Your task to perform on an android device: all mails in gmail Image 0: 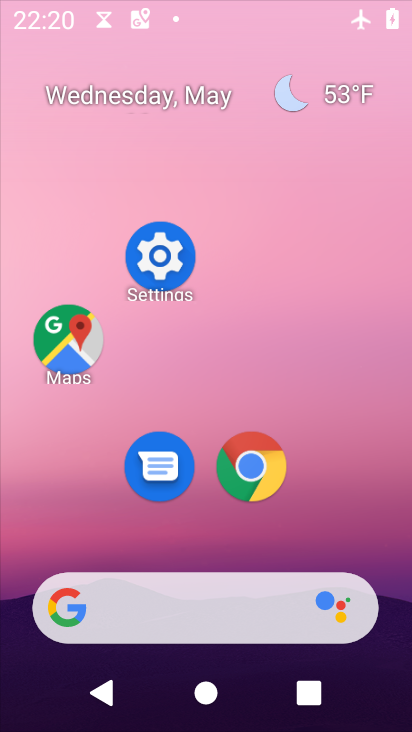
Step 0: click (230, 313)
Your task to perform on an android device: all mails in gmail Image 1: 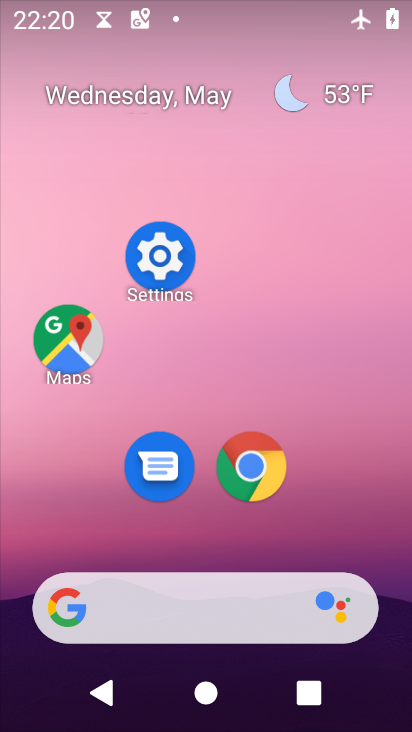
Step 1: drag from (201, 545) to (243, 260)
Your task to perform on an android device: all mails in gmail Image 2: 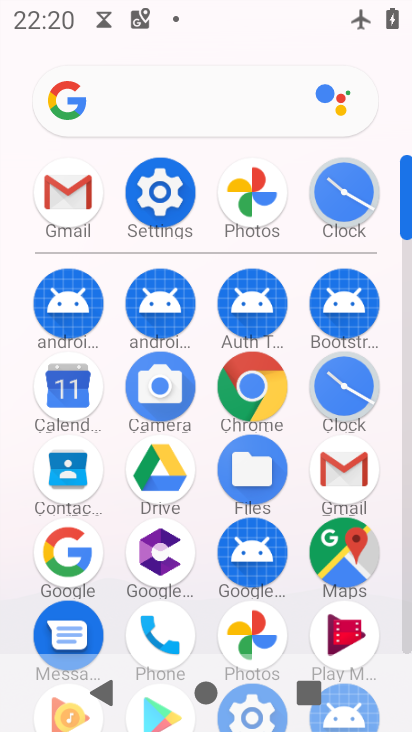
Step 2: drag from (357, 482) to (243, 367)
Your task to perform on an android device: all mails in gmail Image 3: 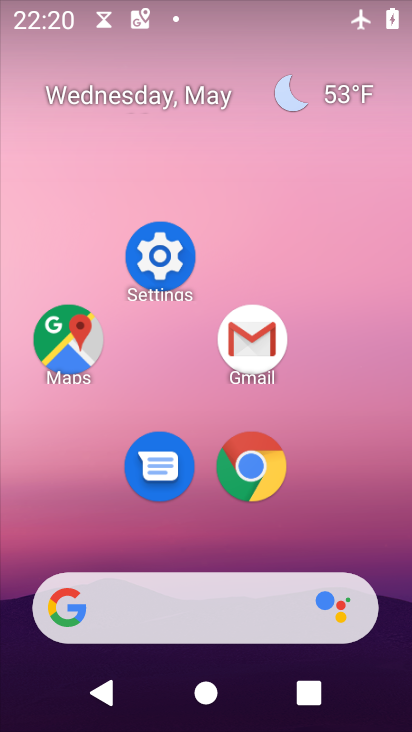
Step 3: click (247, 337)
Your task to perform on an android device: all mails in gmail Image 4: 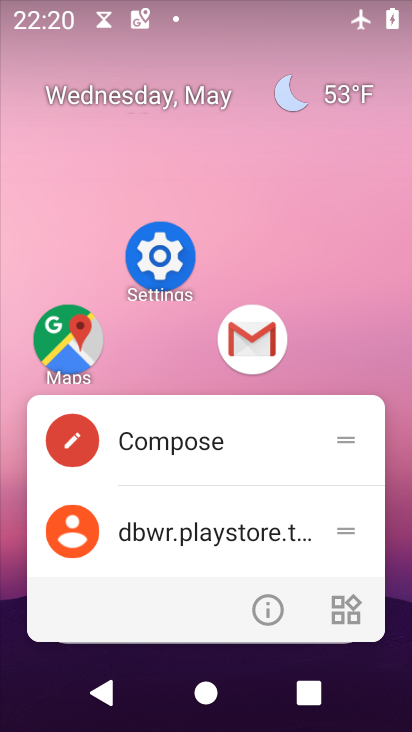
Step 4: click (184, 501)
Your task to perform on an android device: all mails in gmail Image 5: 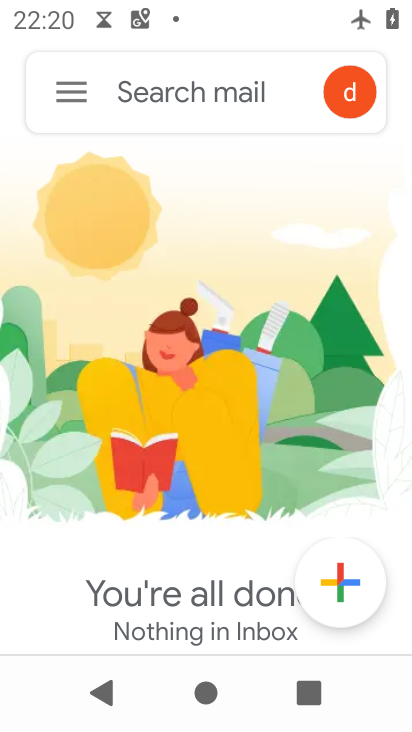
Step 5: click (45, 96)
Your task to perform on an android device: all mails in gmail Image 6: 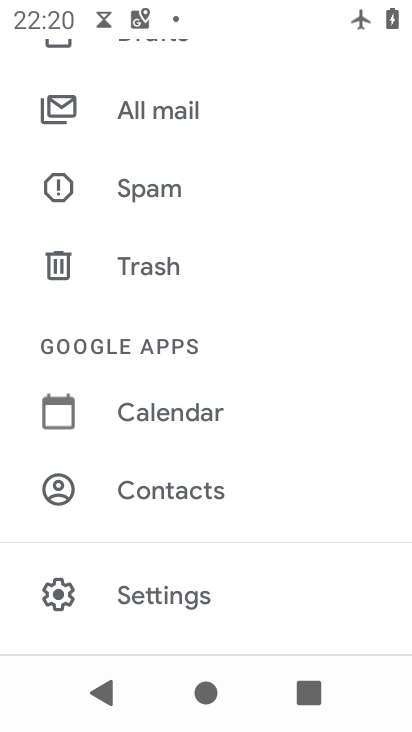
Step 6: click (157, 124)
Your task to perform on an android device: all mails in gmail Image 7: 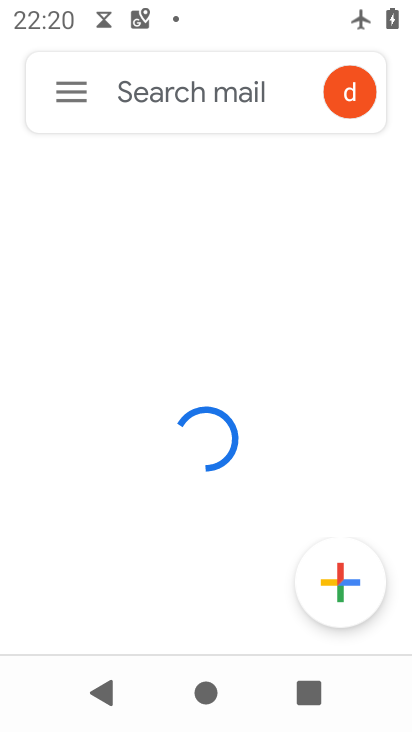
Step 7: task complete